Your task to perform on an android device: turn pop-ups off in chrome Image 0: 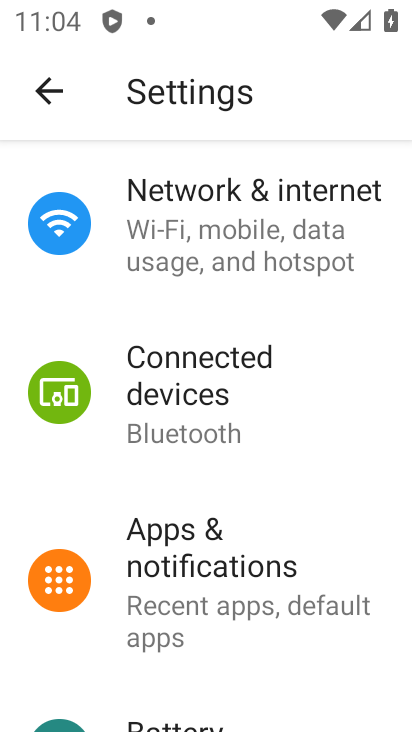
Step 0: press home button
Your task to perform on an android device: turn pop-ups off in chrome Image 1: 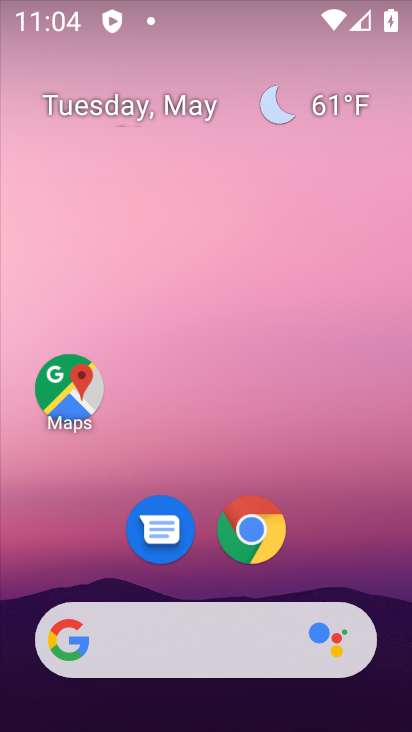
Step 1: click (252, 536)
Your task to perform on an android device: turn pop-ups off in chrome Image 2: 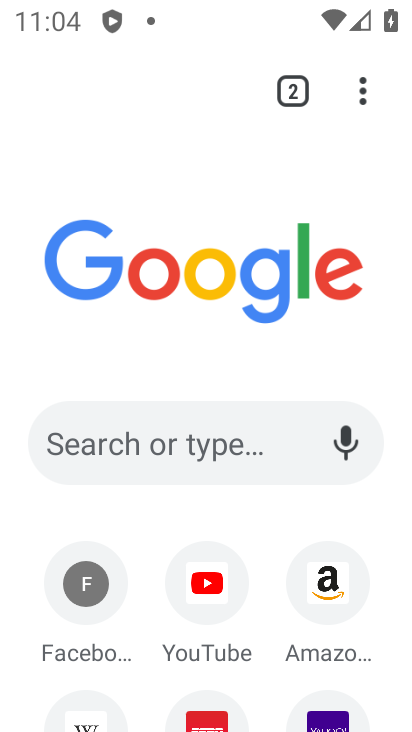
Step 2: click (360, 95)
Your task to perform on an android device: turn pop-ups off in chrome Image 3: 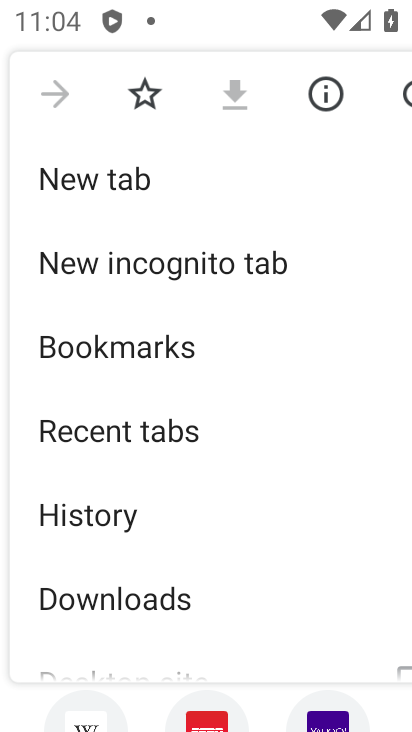
Step 3: drag from (112, 662) to (204, 268)
Your task to perform on an android device: turn pop-ups off in chrome Image 4: 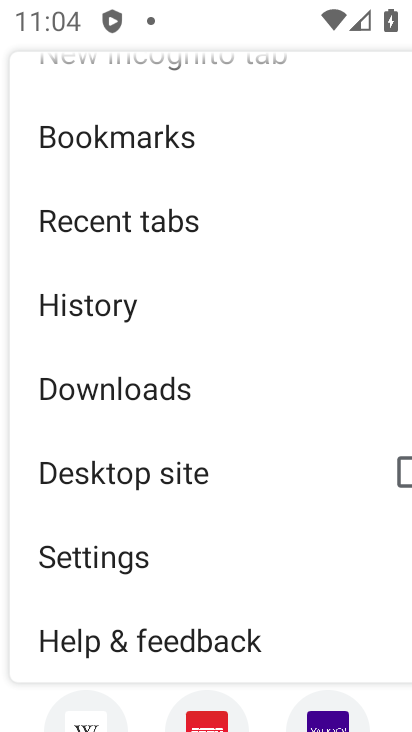
Step 4: click (89, 554)
Your task to perform on an android device: turn pop-ups off in chrome Image 5: 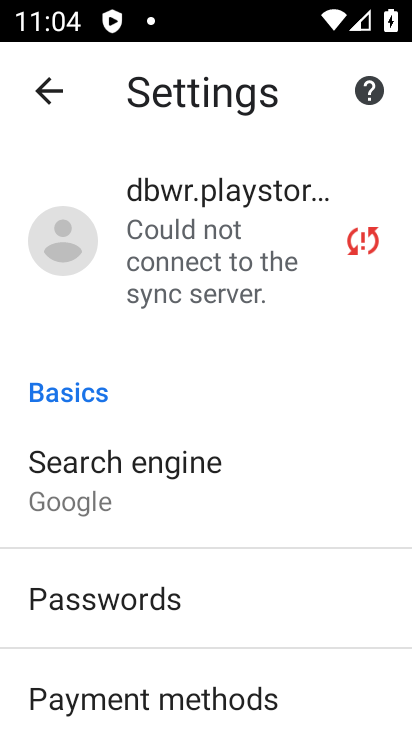
Step 5: drag from (206, 658) to (183, 102)
Your task to perform on an android device: turn pop-ups off in chrome Image 6: 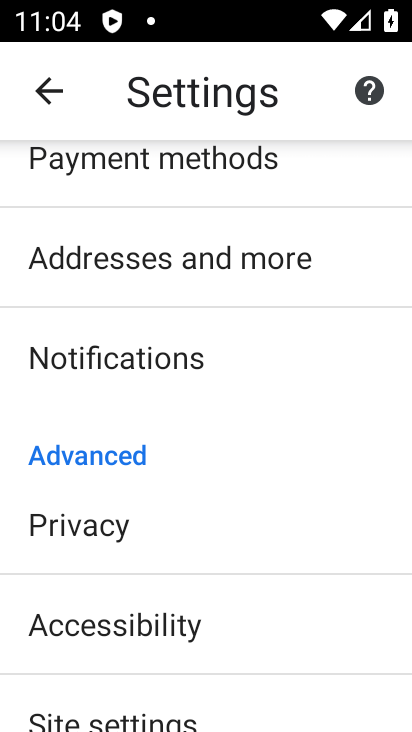
Step 6: click (124, 717)
Your task to perform on an android device: turn pop-ups off in chrome Image 7: 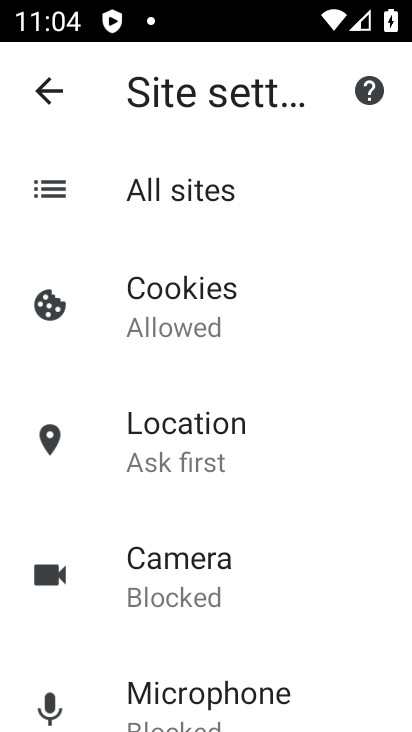
Step 7: drag from (331, 698) to (289, 165)
Your task to perform on an android device: turn pop-ups off in chrome Image 8: 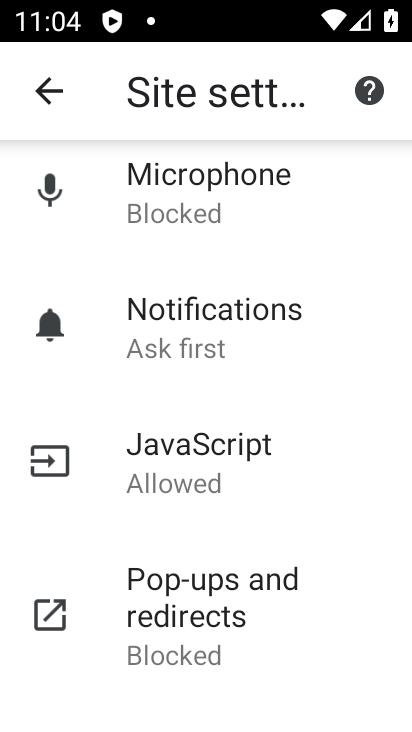
Step 8: click (176, 607)
Your task to perform on an android device: turn pop-ups off in chrome Image 9: 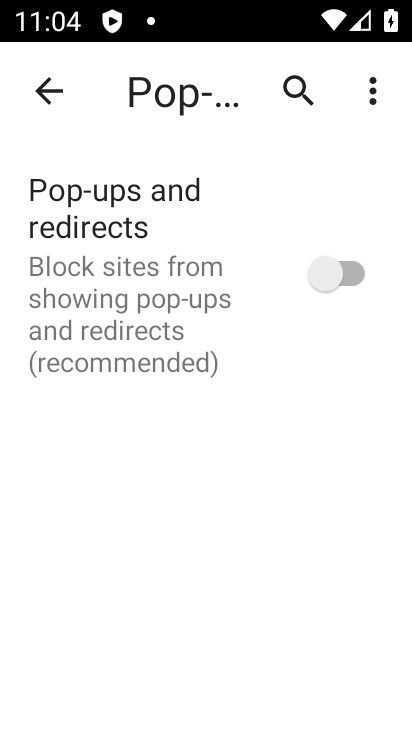
Step 9: task complete